Your task to perform on an android device: Find coffee shops on Maps Image 0: 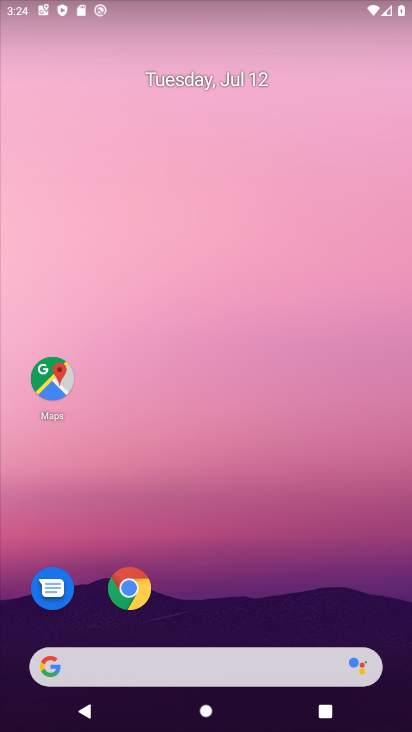
Step 0: click (58, 387)
Your task to perform on an android device: Find coffee shops on Maps Image 1: 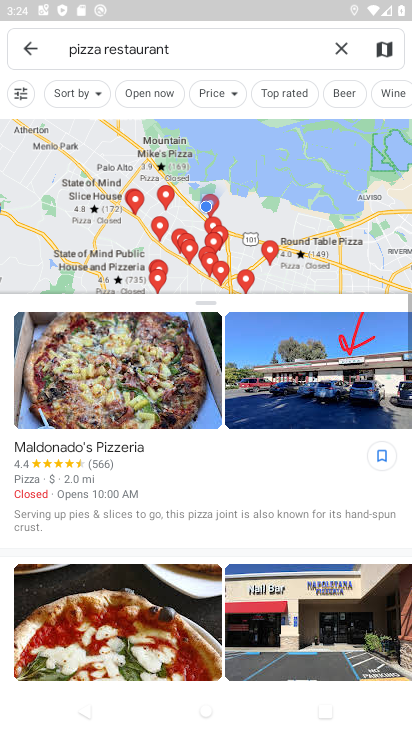
Step 1: click (340, 49)
Your task to perform on an android device: Find coffee shops on Maps Image 2: 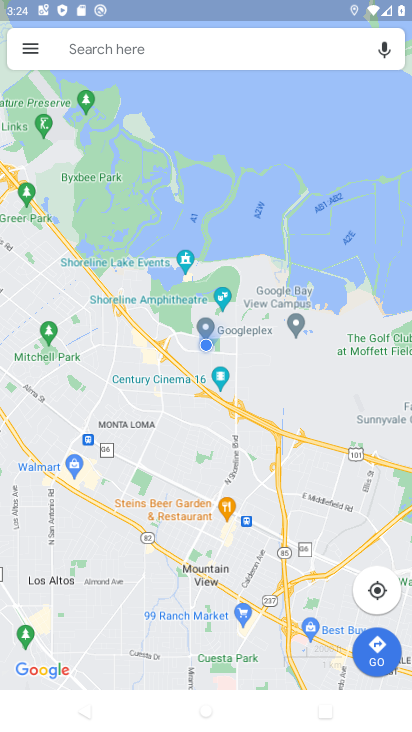
Step 2: click (197, 49)
Your task to perform on an android device: Find coffee shops on Maps Image 3: 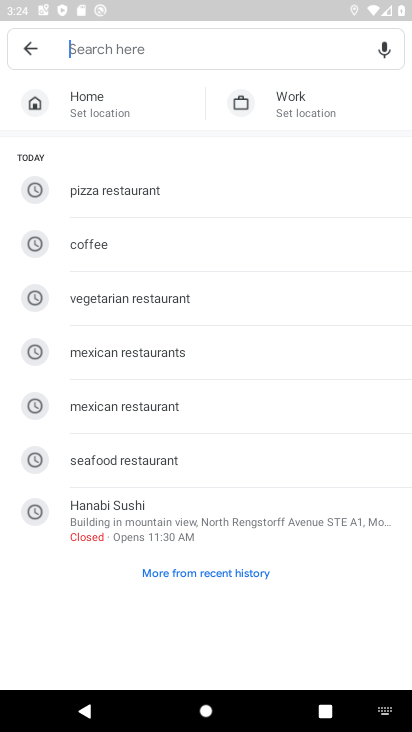
Step 3: type "coffee shops"
Your task to perform on an android device: Find coffee shops on Maps Image 4: 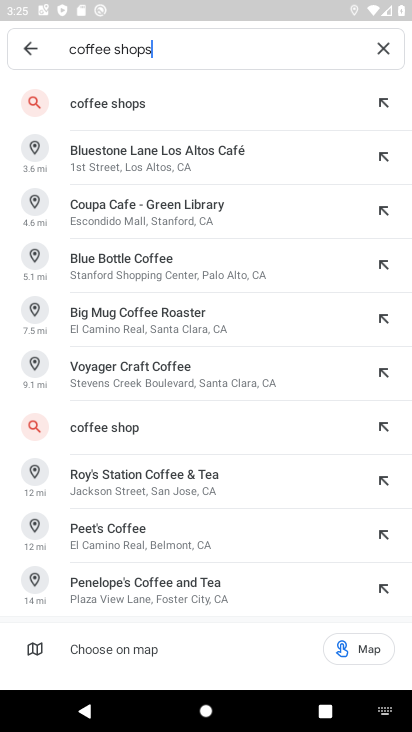
Step 4: click (148, 94)
Your task to perform on an android device: Find coffee shops on Maps Image 5: 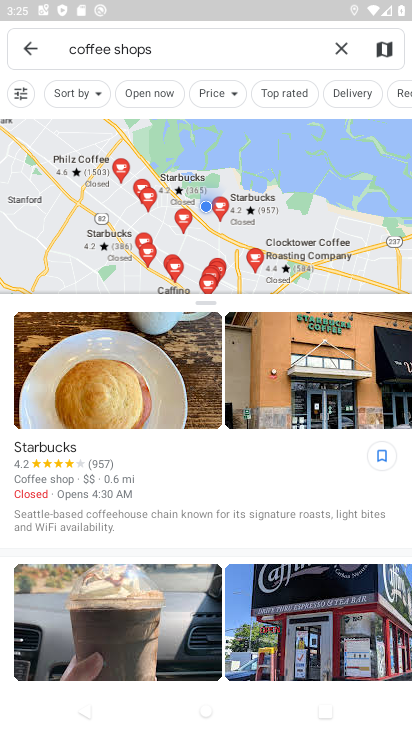
Step 5: task complete